Your task to perform on an android device: turn off sleep mode Image 0: 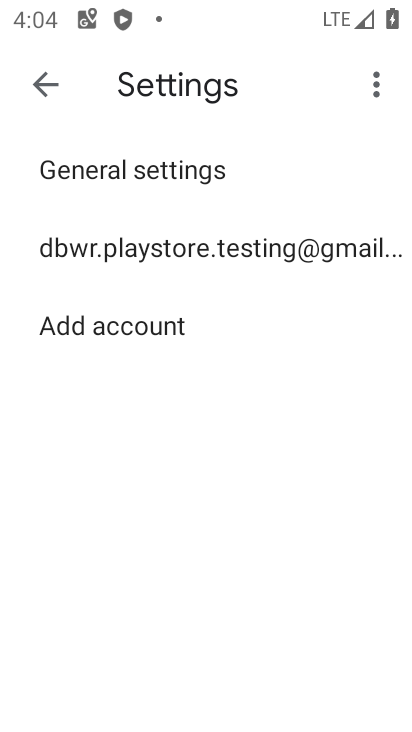
Step 0: press home button
Your task to perform on an android device: turn off sleep mode Image 1: 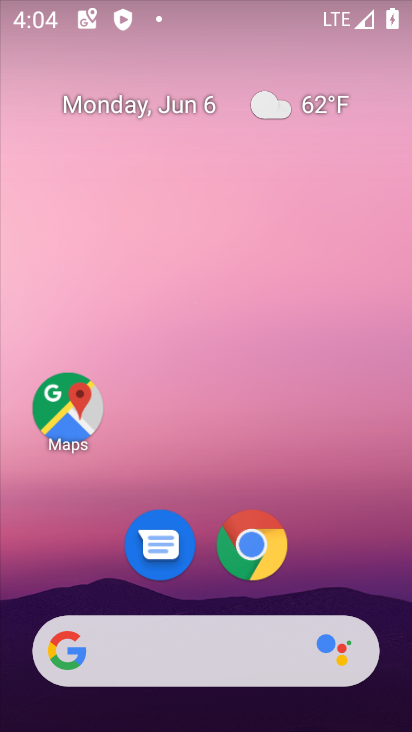
Step 1: drag from (235, 730) to (230, 58)
Your task to perform on an android device: turn off sleep mode Image 2: 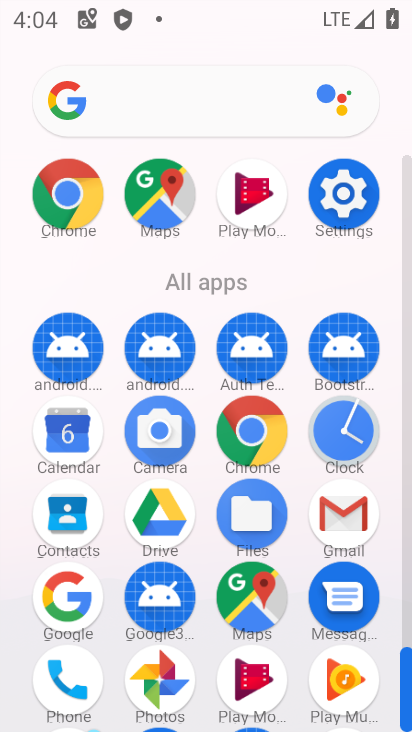
Step 2: click (347, 182)
Your task to perform on an android device: turn off sleep mode Image 3: 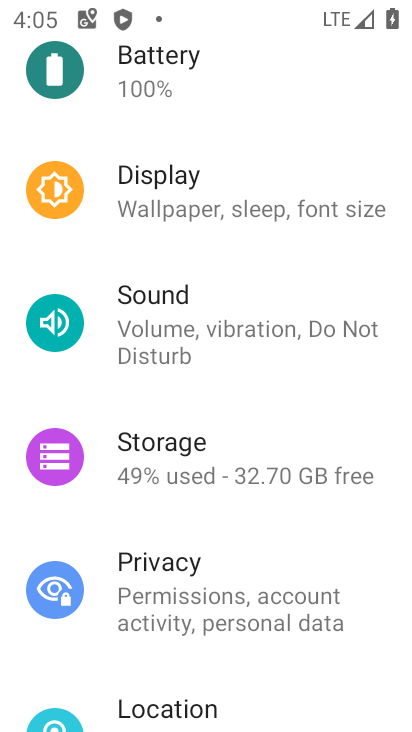
Step 3: click (240, 210)
Your task to perform on an android device: turn off sleep mode Image 4: 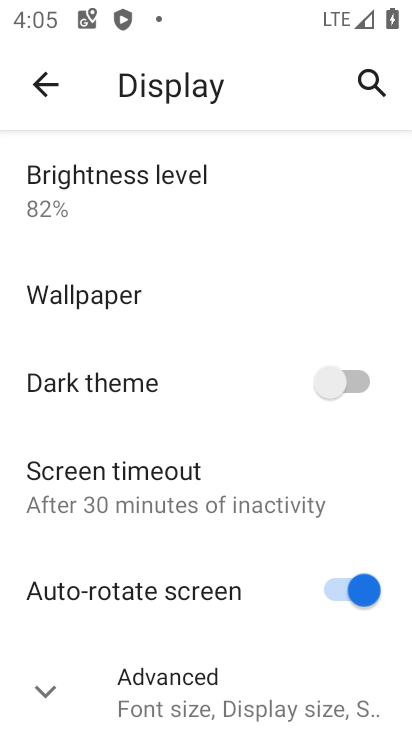
Step 4: task complete